Your task to perform on an android device: Open network settings Image 0: 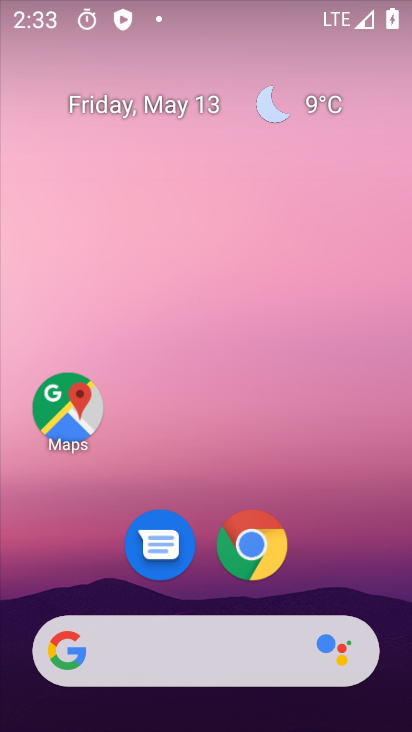
Step 0: drag from (297, 546) to (351, 123)
Your task to perform on an android device: Open network settings Image 1: 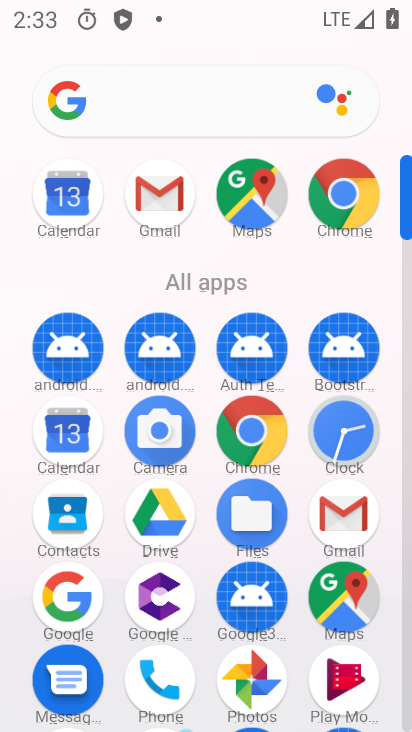
Step 1: drag from (210, 299) to (252, 85)
Your task to perform on an android device: Open network settings Image 2: 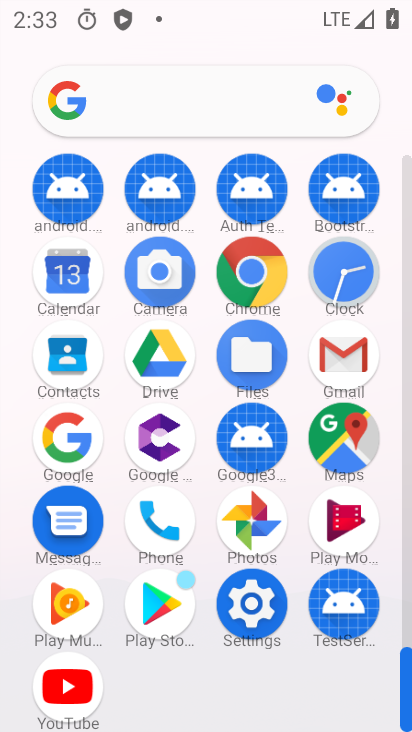
Step 2: click (250, 625)
Your task to perform on an android device: Open network settings Image 3: 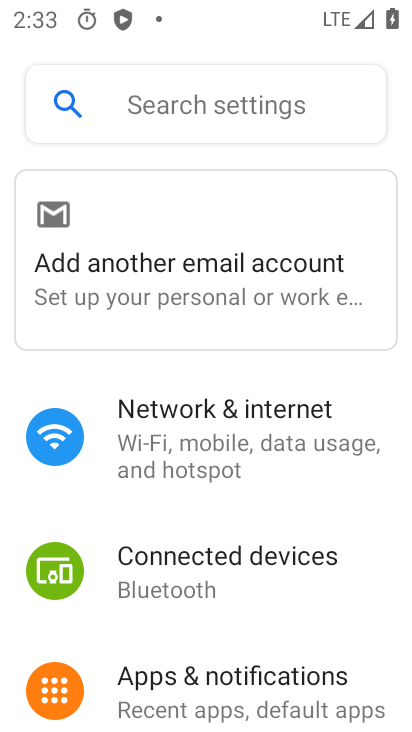
Step 3: click (213, 438)
Your task to perform on an android device: Open network settings Image 4: 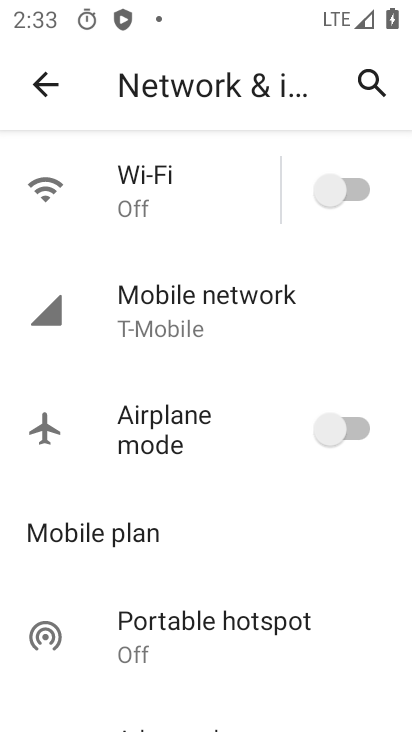
Step 4: task complete